Your task to perform on an android device: See recent photos Image 0: 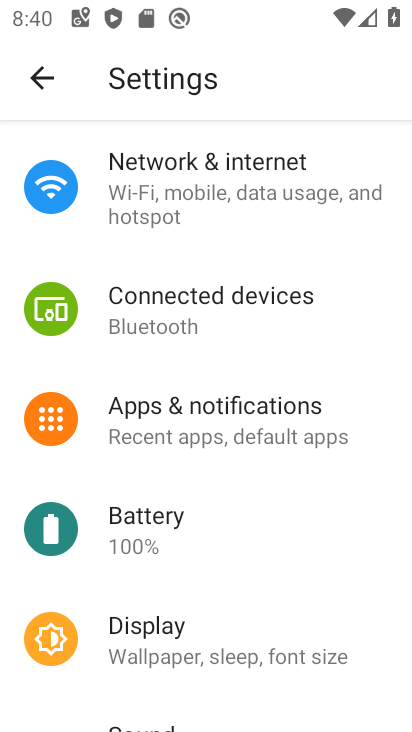
Step 0: press home button
Your task to perform on an android device: See recent photos Image 1: 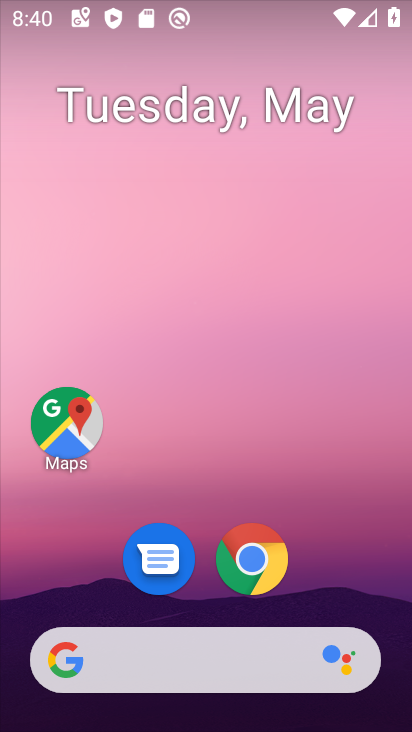
Step 1: drag from (365, 504) to (291, 144)
Your task to perform on an android device: See recent photos Image 2: 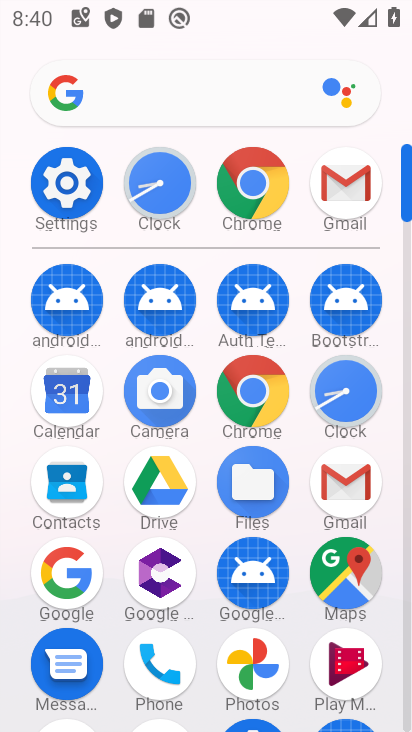
Step 2: click (267, 671)
Your task to perform on an android device: See recent photos Image 3: 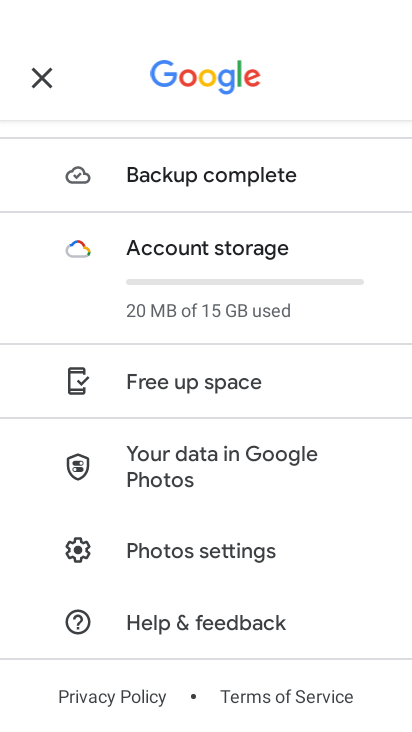
Step 3: click (27, 70)
Your task to perform on an android device: See recent photos Image 4: 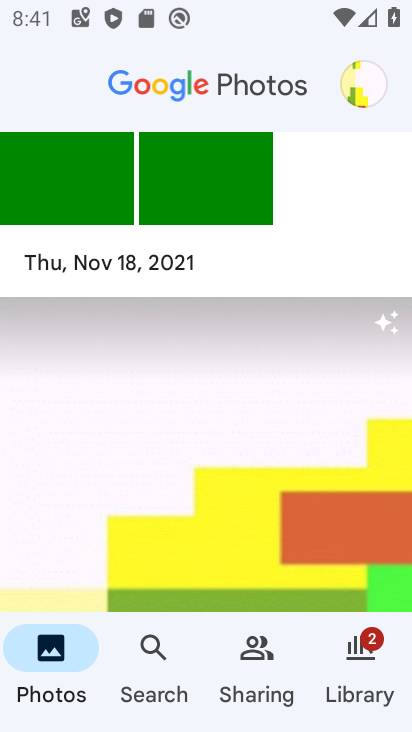
Step 4: task complete